Your task to perform on an android device: change notifications settings Image 0: 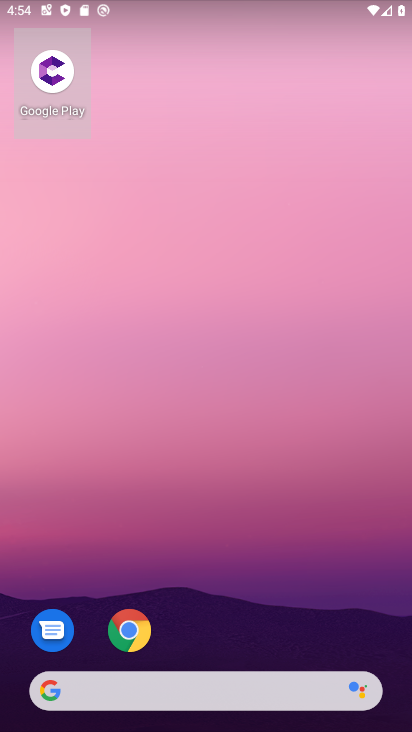
Step 0: drag from (313, 590) to (274, 164)
Your task to perform on an android device: change notifications settings Image 1: 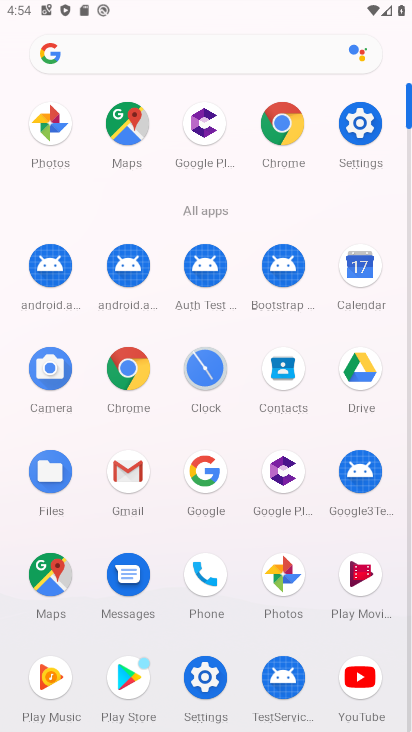
Step 1: click (360, 120)
Your task to perform on an android device: change notifications settings Image 2: 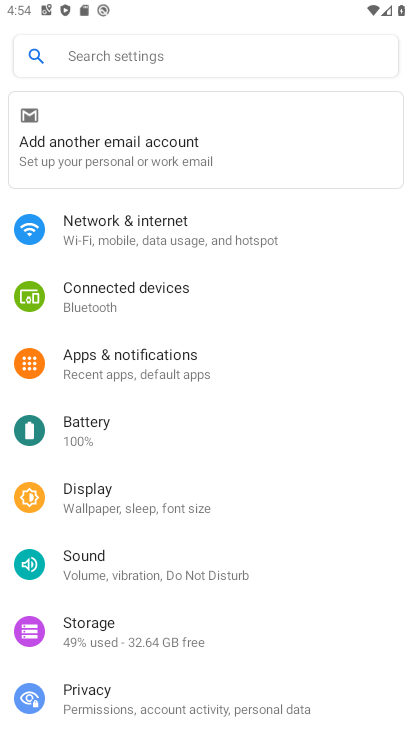
Step 2: click (142, 366)
Your task to perform on an android device: change notifications settings Image 3: 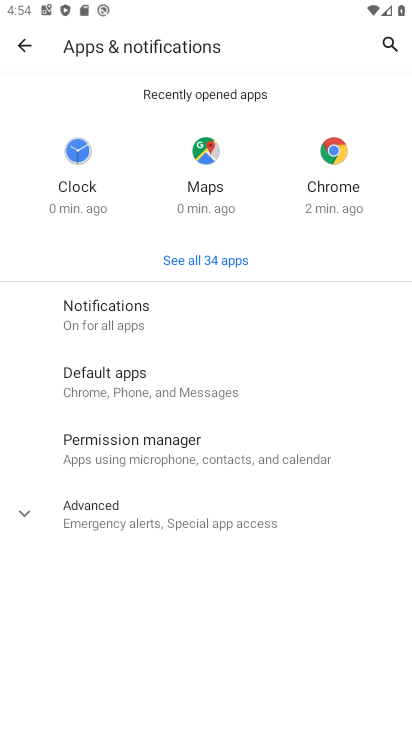
Step 3: click (126, 317)
Your task to perform on an android device: change notifications settings Image 4: 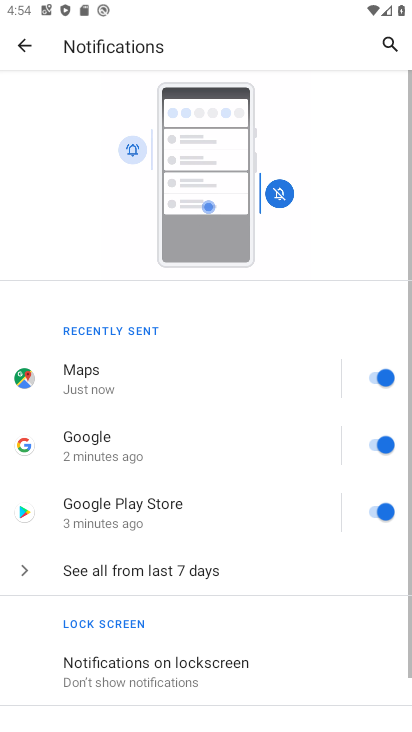
Step 4: drag from (230, 598) to (282, 45)
Your task to perform on an android device: change notifications settings Image 5: 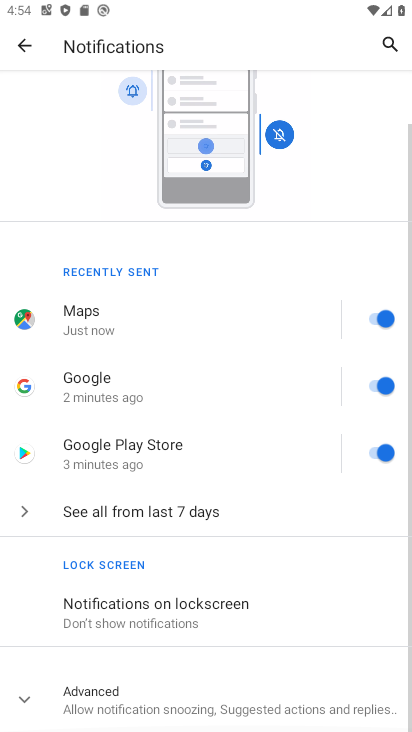
Step 5: click (119, 686)
Your task to perform on an android device: change notifications settings Image 6: 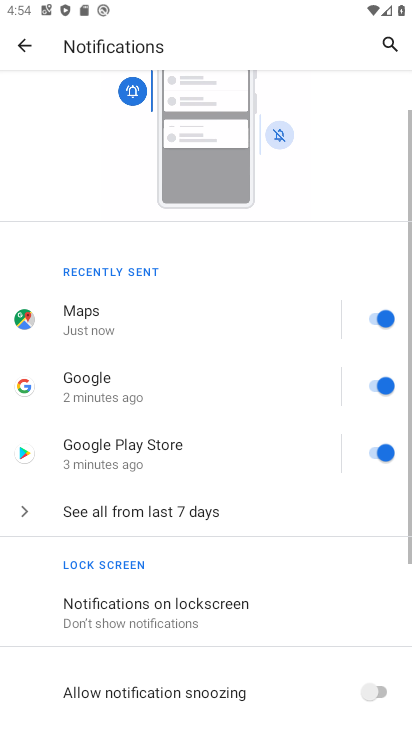
Step 6: drag from (247, 676) to (276, 306)
Your task to perform on an android device: change notifications settings Image 7: 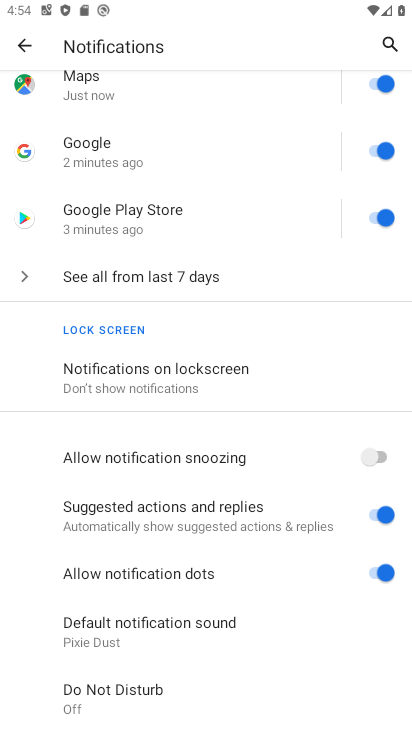
Step 7: click (383, 442)
Your task to perform on an android device: change notifications settings Image 8: 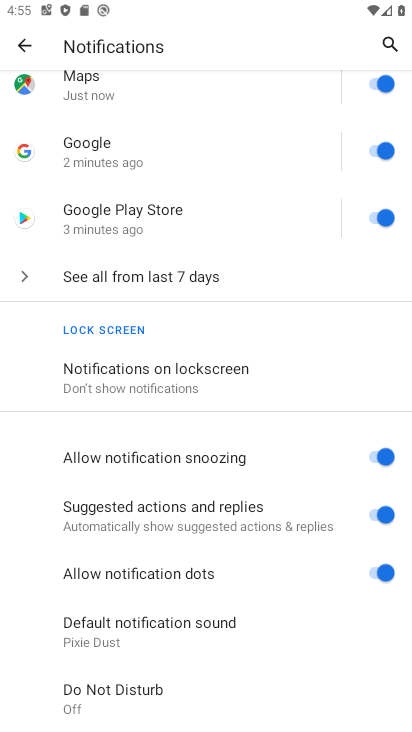
Step 8: task complete